Your task to perform on an android device: Add lg ultragear to the cart on costco.com Image 0: 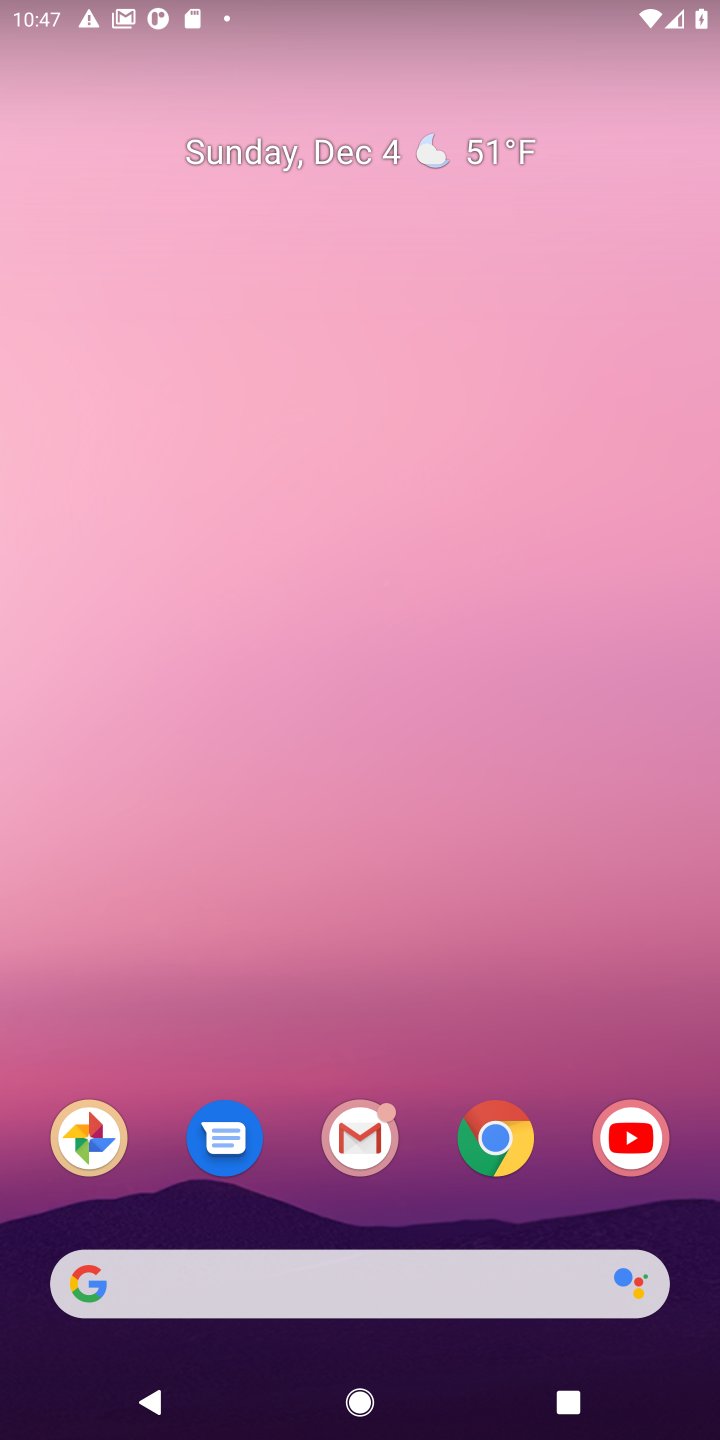
Step 0: click (511, 1151)
Your task to perform on an android device: Add lg ultragear to the cart on costco.com Image 1: 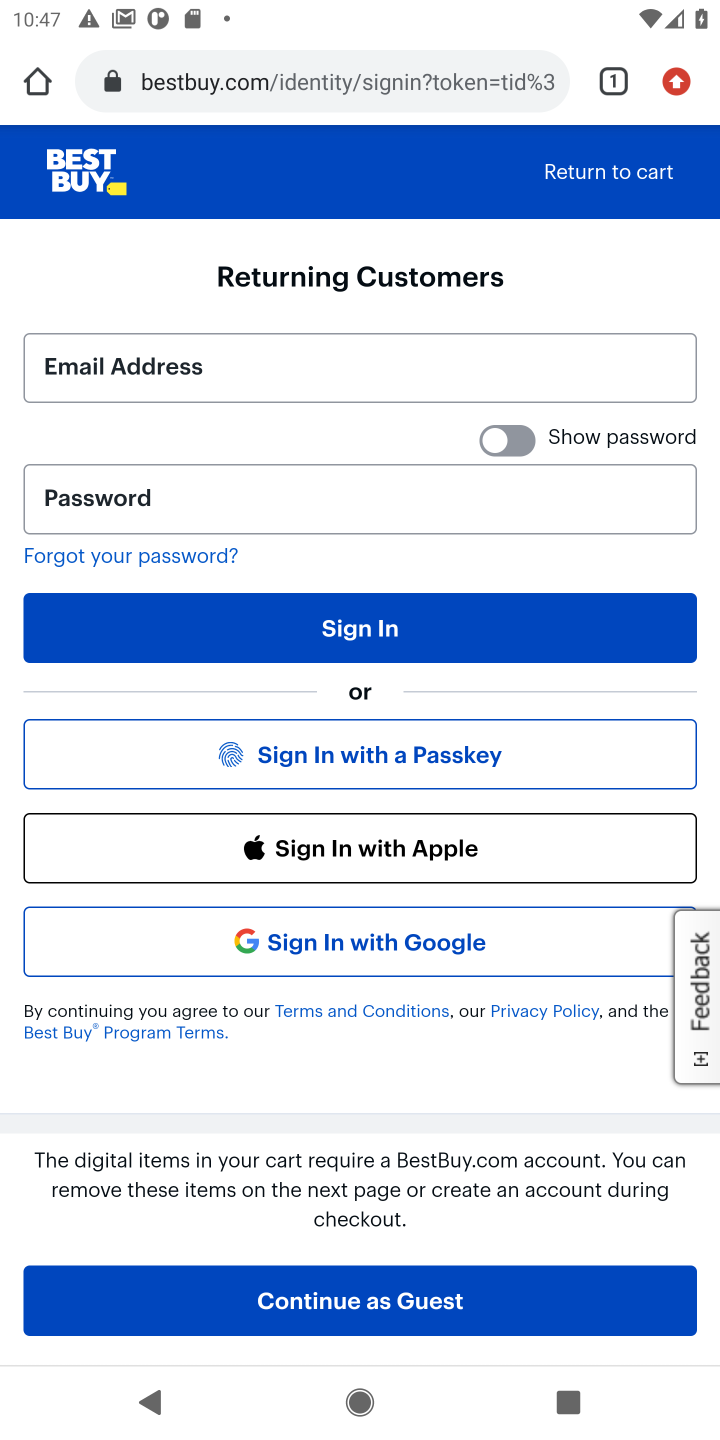
Step 1: click (422, 62)
Your task to perform on an android device: Add lg ultragear to the cart on costco.com Image 2: 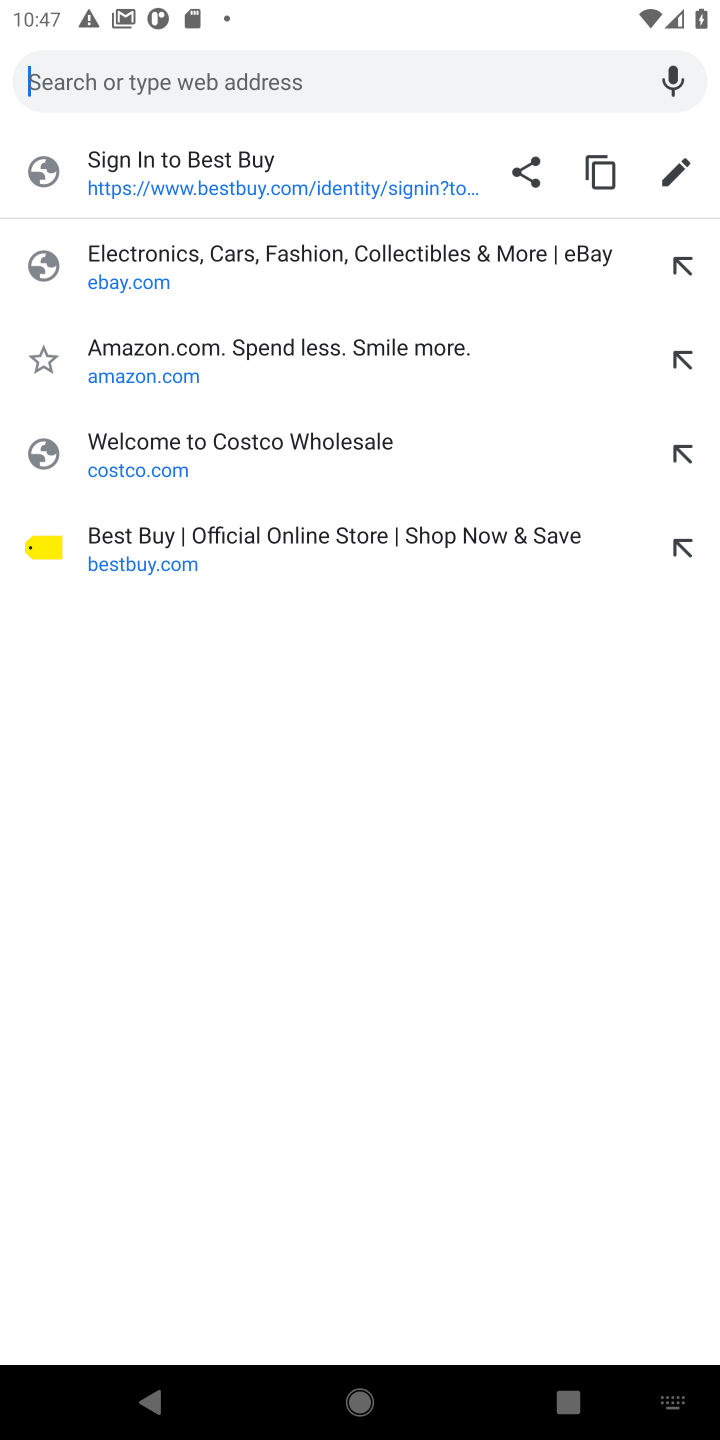
Step 2: click (248, 453)
Your task to perform on an android device: Add lg ultragear to the cart on costco.com Image 3: 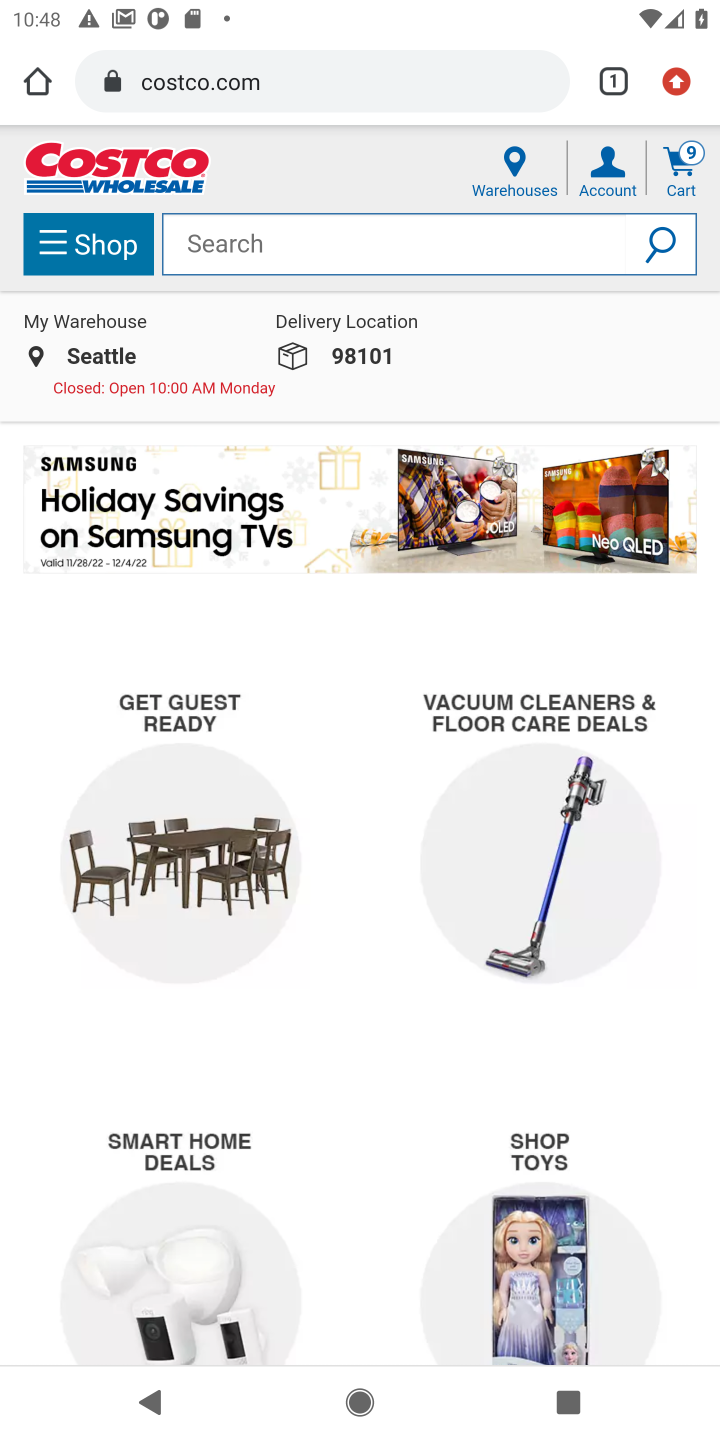
Step 3: click (522, 255)
Your task to perform on an android device: Add lg ultragear to the cart on costco.com Image 4: 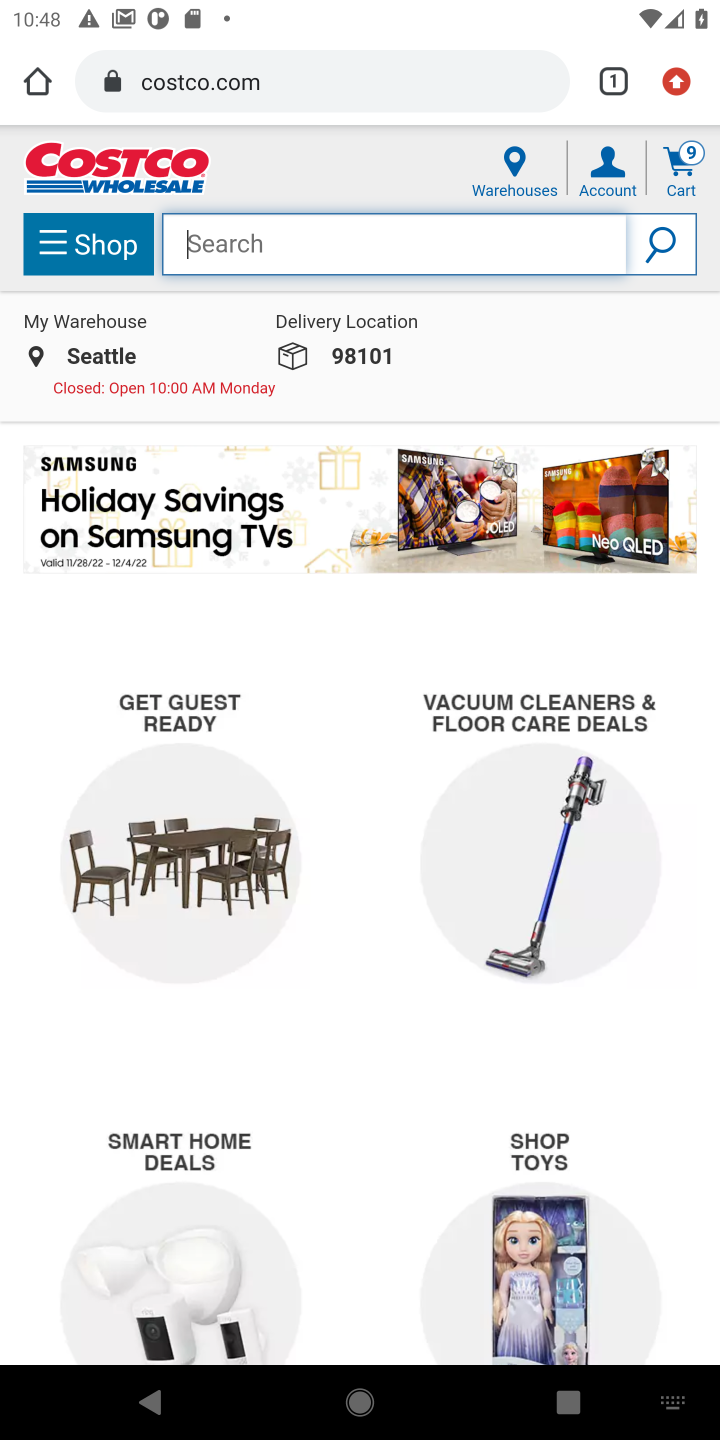
Step 4: press enter
Your task to perform on an android device: Add lg ultragear to the cart on costco.com Image 5: 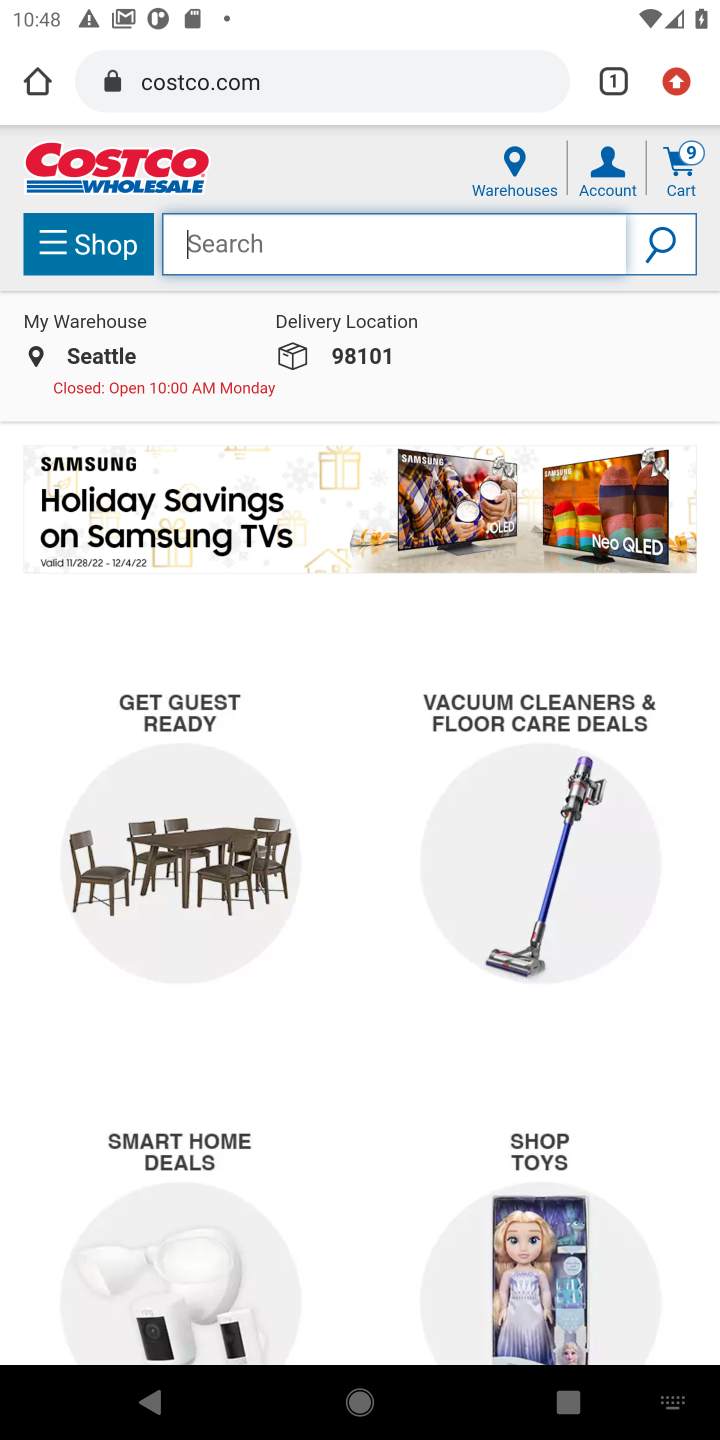
Step 5: type "lg ultragear"
Your task to perform on an android device: Add lg ultragear to the cart on costco.com Image 6: 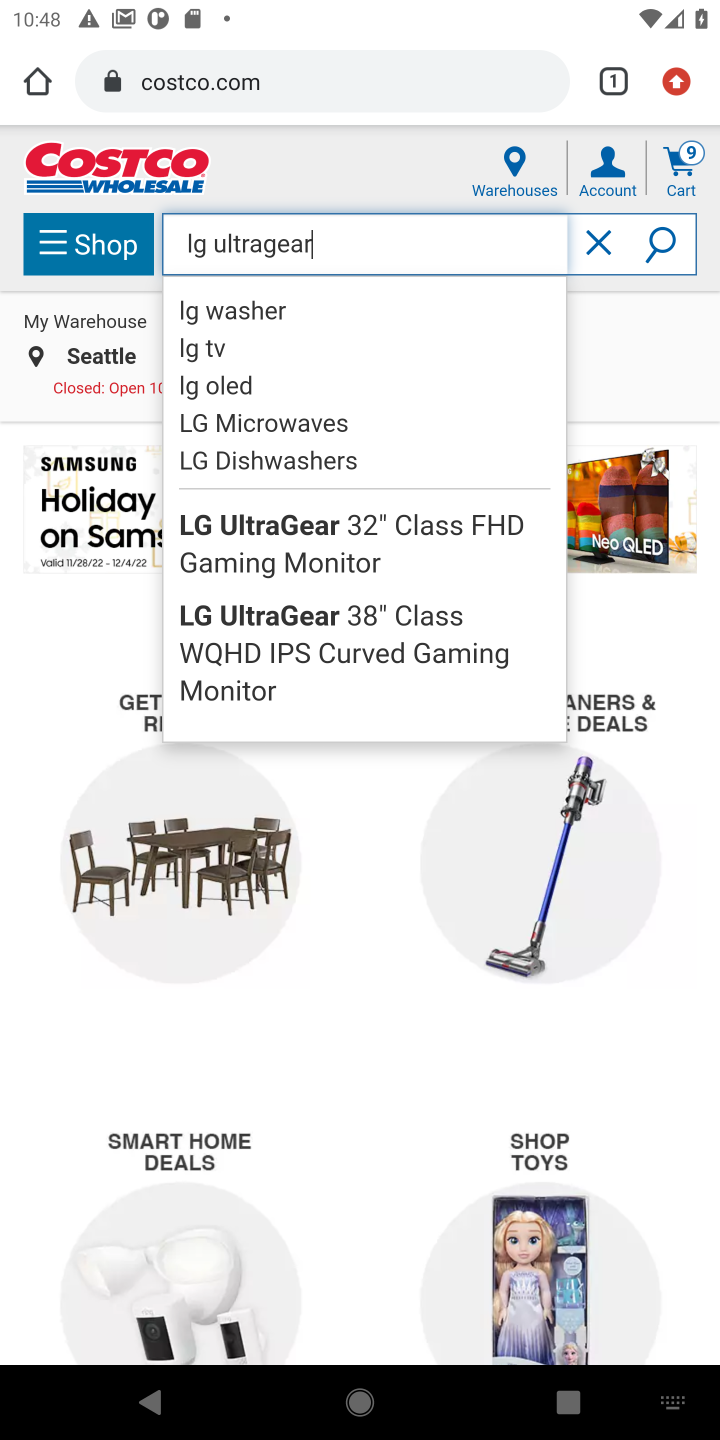
Step 6: click (665, 240)
Your task to perform on an android device: Add lg ultragear to the cart on costco.com Image 7: 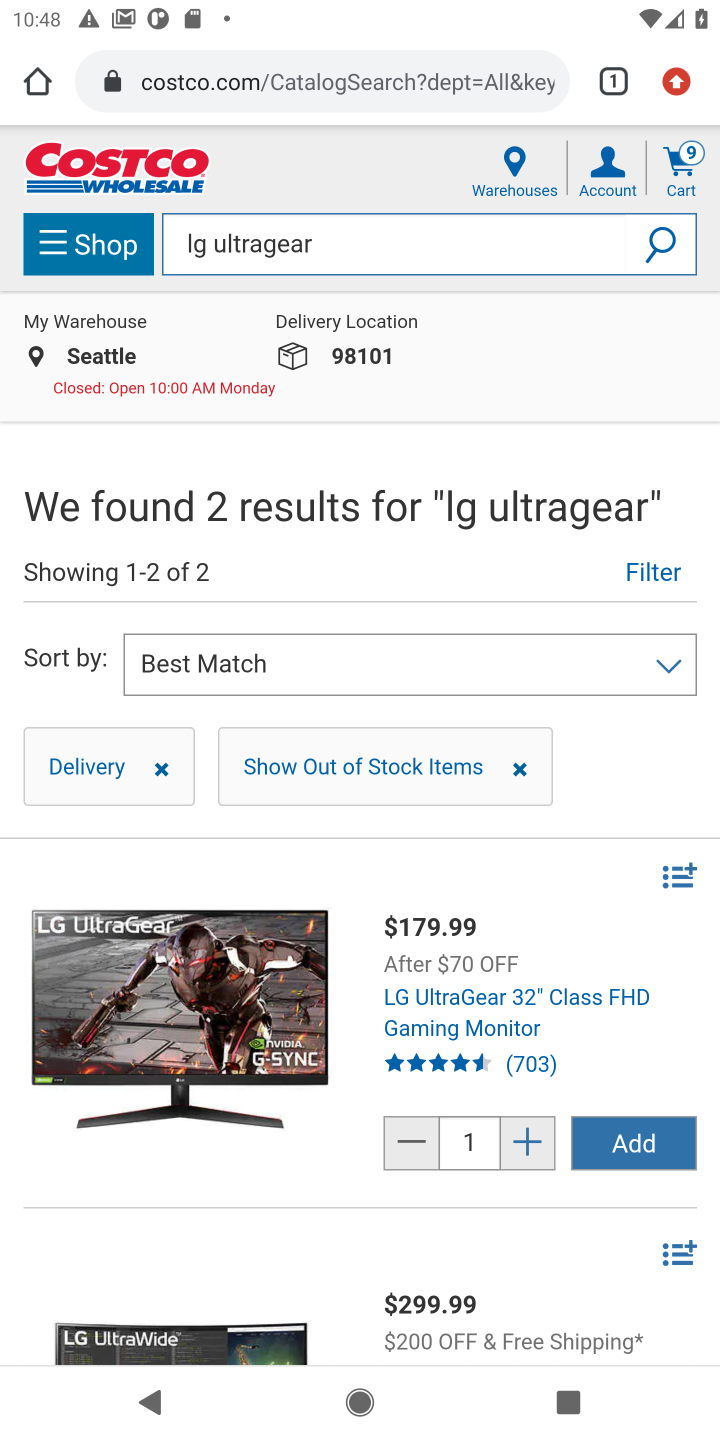
Step 7: click (146, 991)
Your task to perform on an android device: Add lg ultragear to the cart on costco.com Image 8: 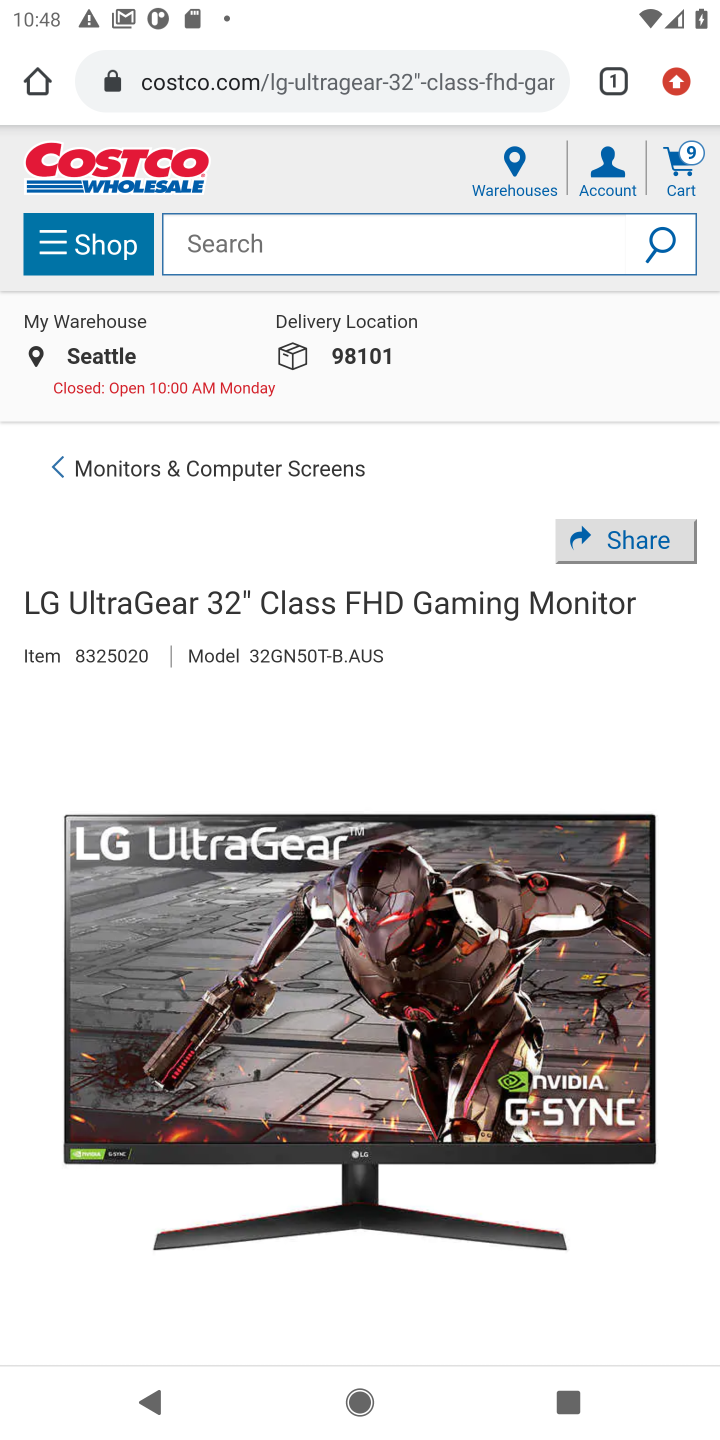
Step 8: drag from (636, 1227) to (612, 625)
Your task to perform on an android device: Add lg ultragear to the cart on costco.com Image 9: 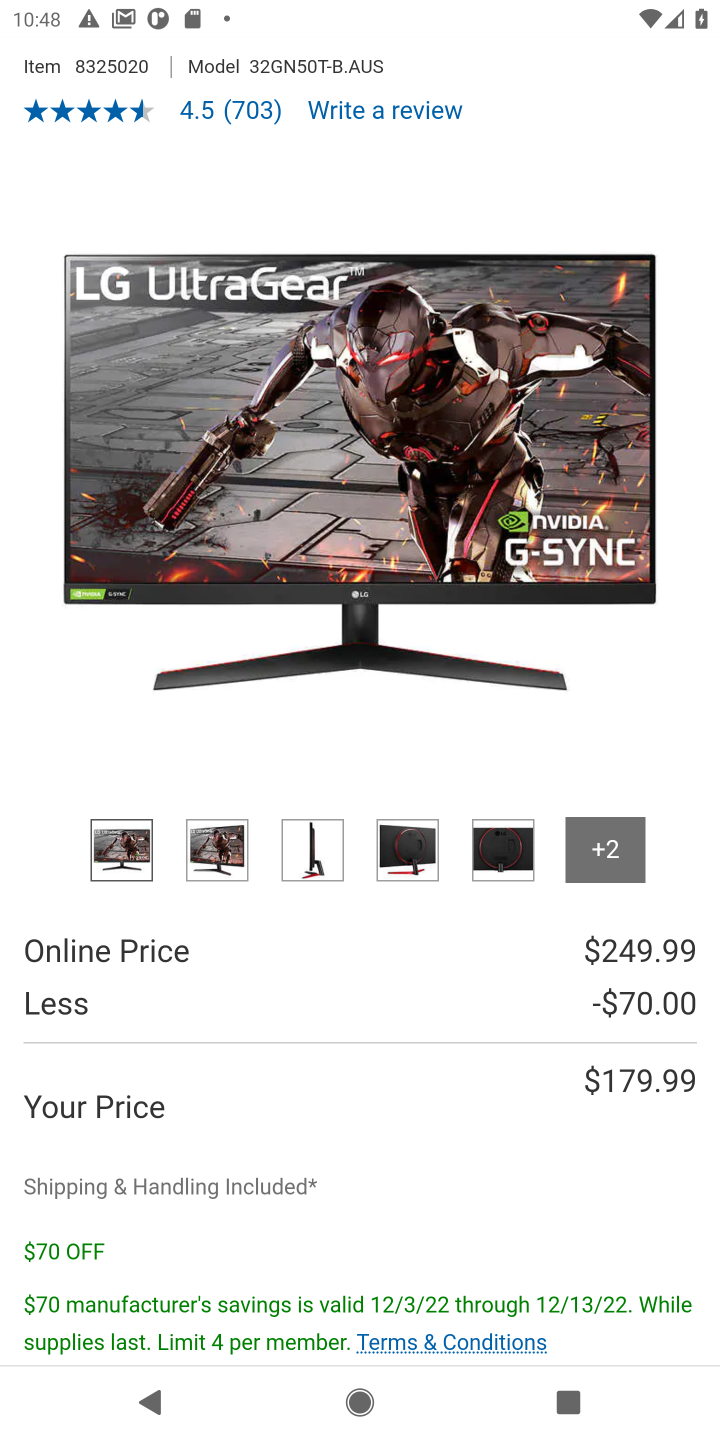
Step 9: drag from (618, 1165) to (497, 628)
Your task to perform on an android device: Add lg ultragear to the cart on costco.com Image 10: 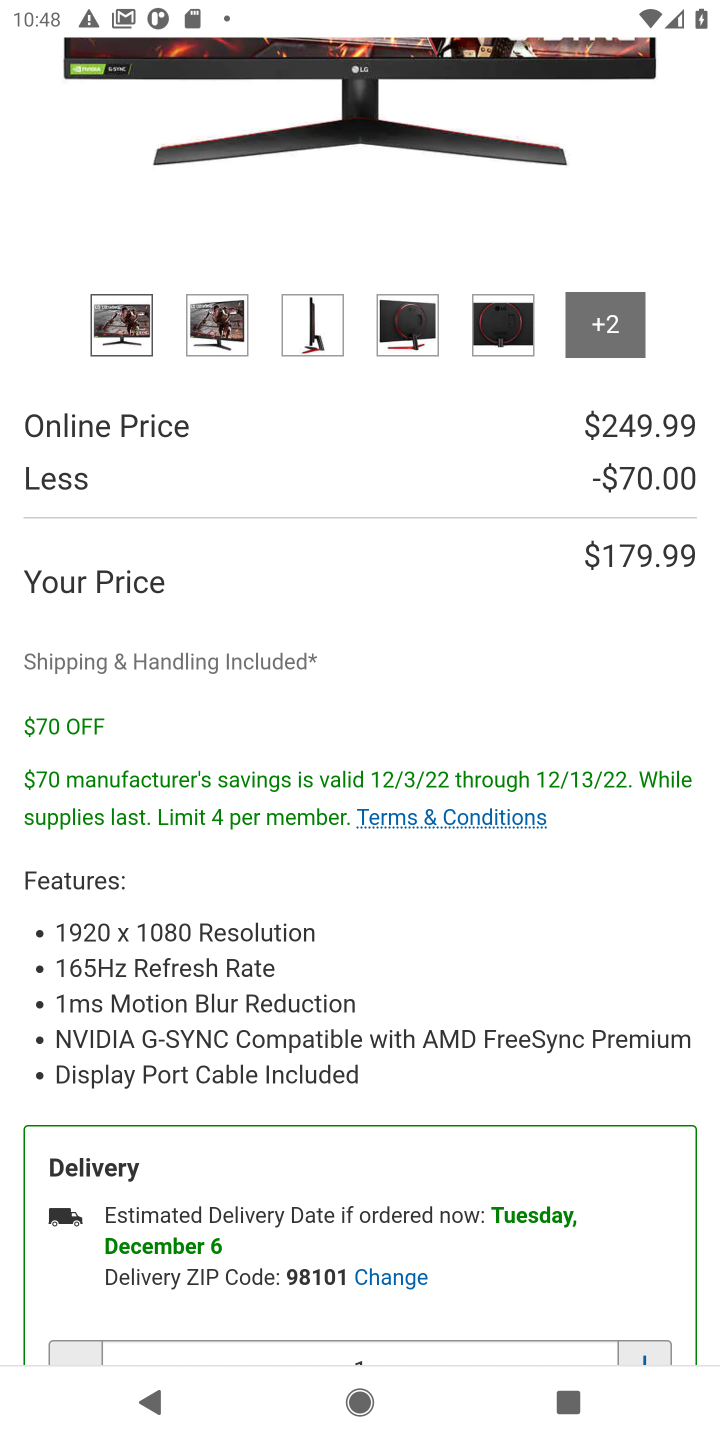
Step 10: drag from (529, 757) to (481, 537)
Your task to perform on an android device: Add lg ultragear to the cart on costco.com Image 11: 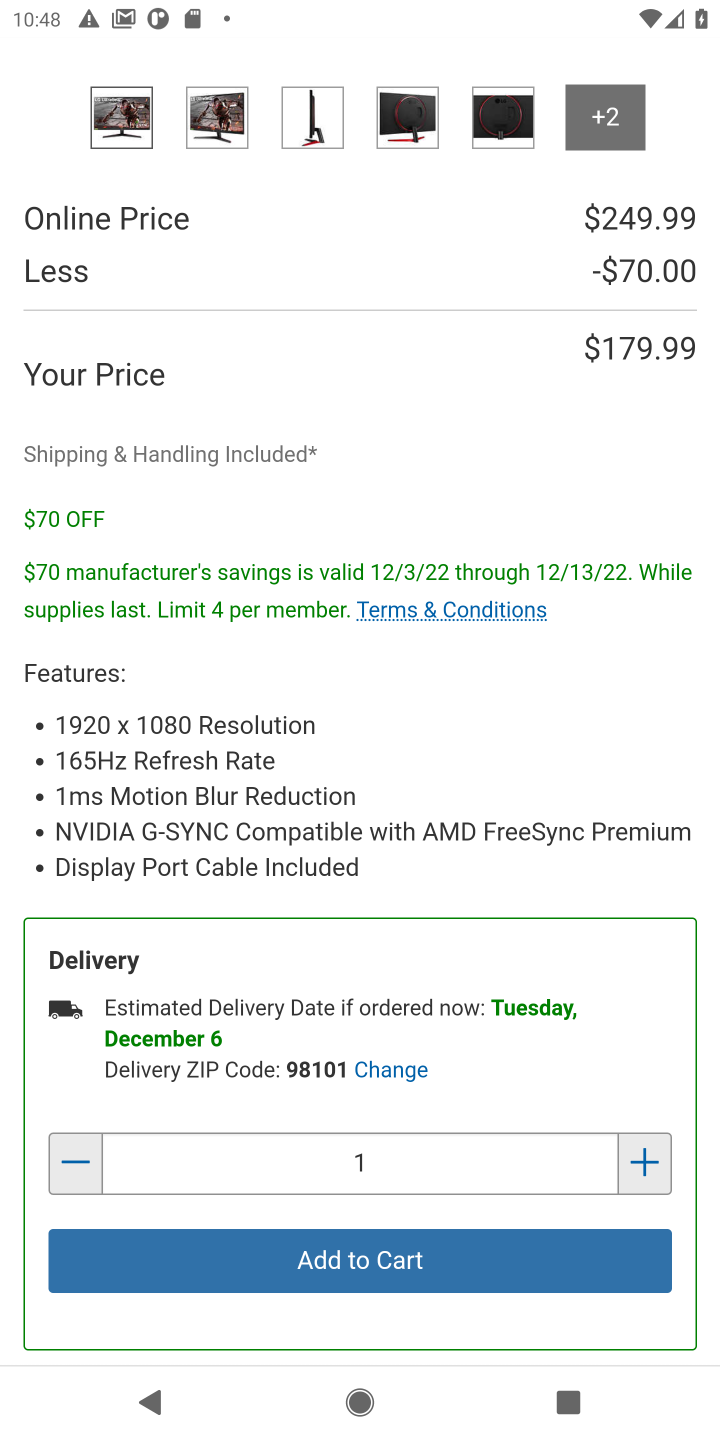
Step 11: click (347, 1262)
Your task to perform on an android device: Add lg ultragear to the cart on costco.com Image 12: 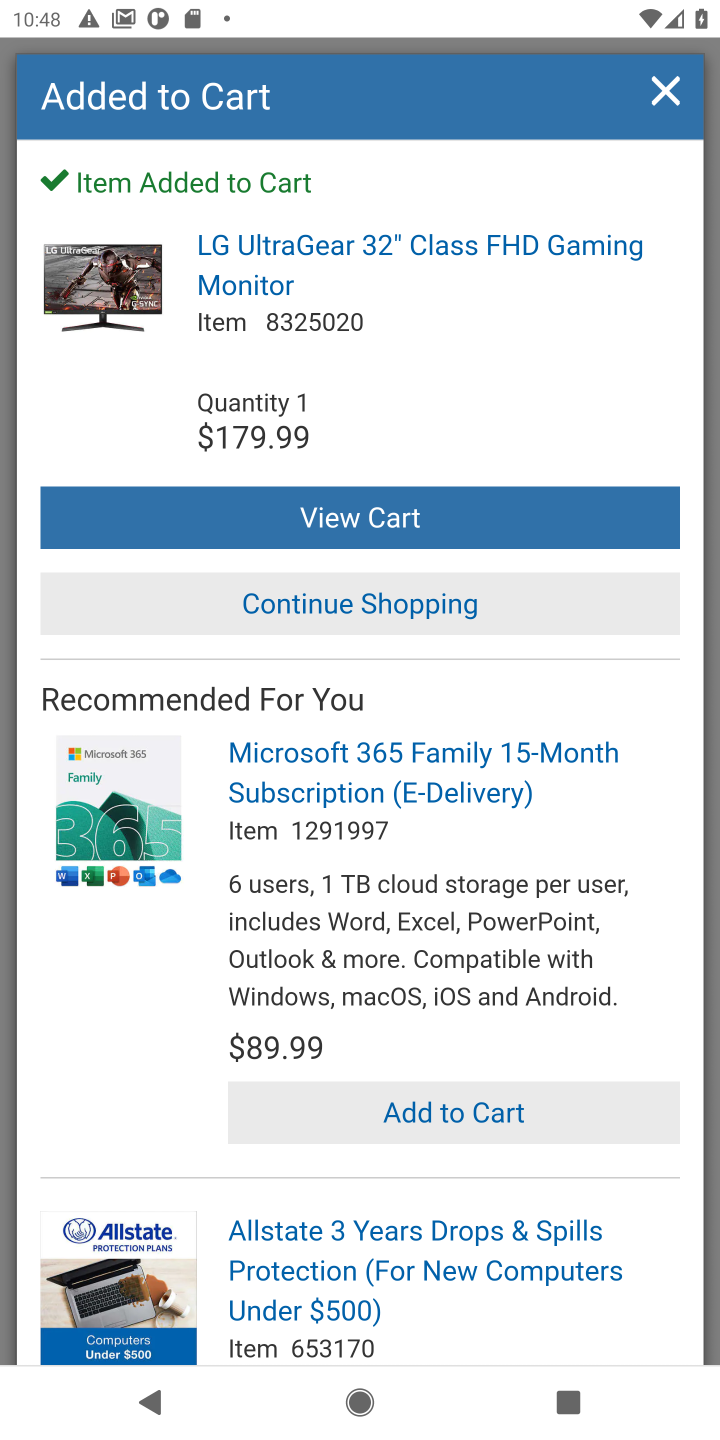
Step 12: task complete